Your task to perform on an android device: Go to location settings Image 0: 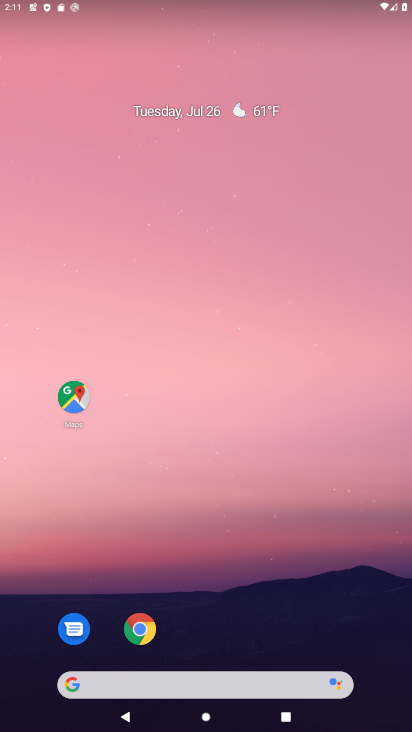
Step 0: drag from (239, 572) to (218, 108)
Your task to perform on an android device: Go to location settings Image 1: 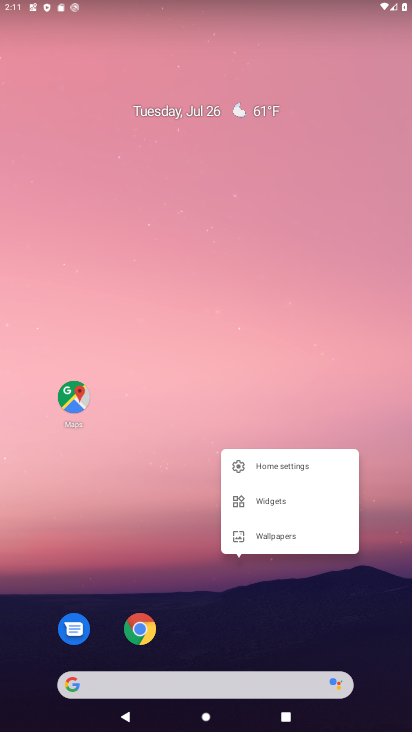
Step 1: click (185, 377)
Your task to perform on an android device: Go to location settings Image 2: 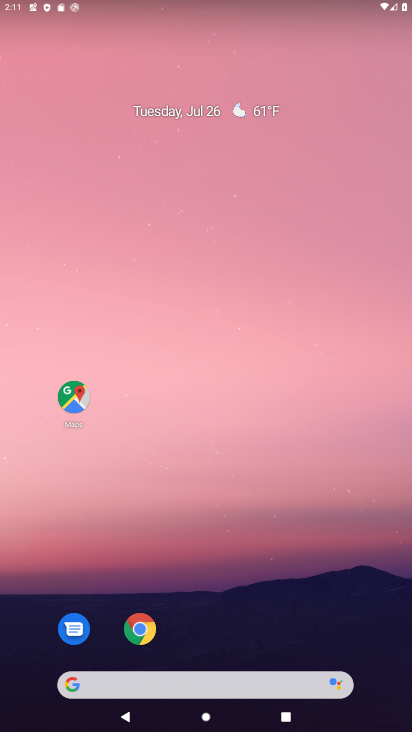
Step 2: drag from (207, 542) to (207, 63)
Your task to perform on an android device: Go to location settings Image 3: 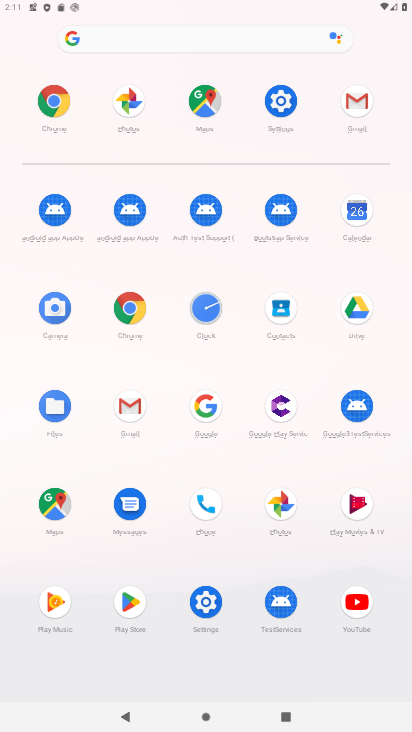
Step 3: click (280, 105)
Your task to perform on an android device: Go to location settings Image 4: 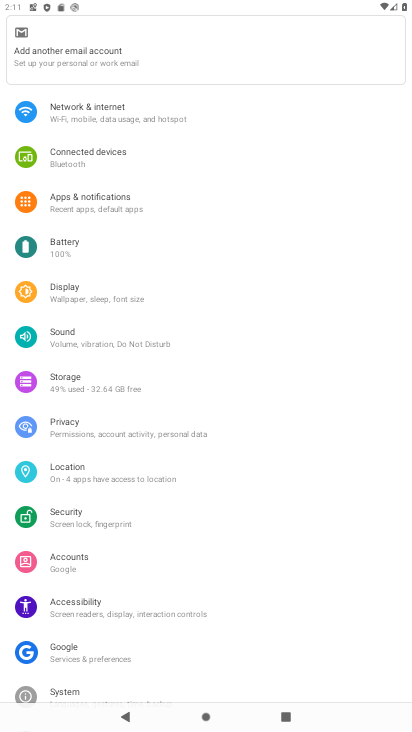
Step 4: click (61, 469)
Your task to perform on an android device: Go to location settings Image 5: 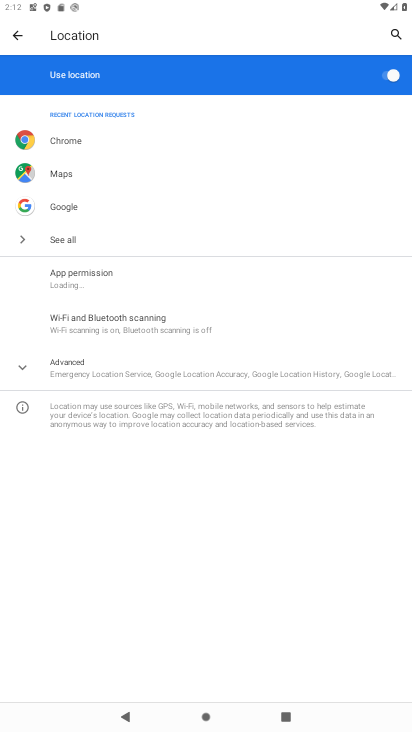
Step 5: task complete